Your task to perform on an android device: Open settings on Google Maps Image 0: 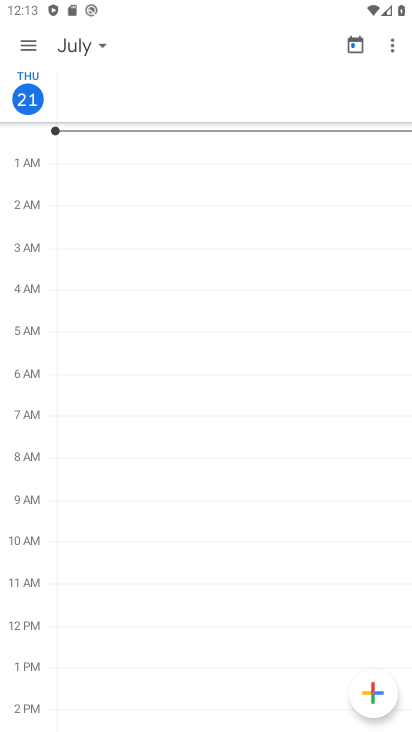
Step 0: press home button
Your task to perform on an android device: Open settings on Google Maps Image 1: 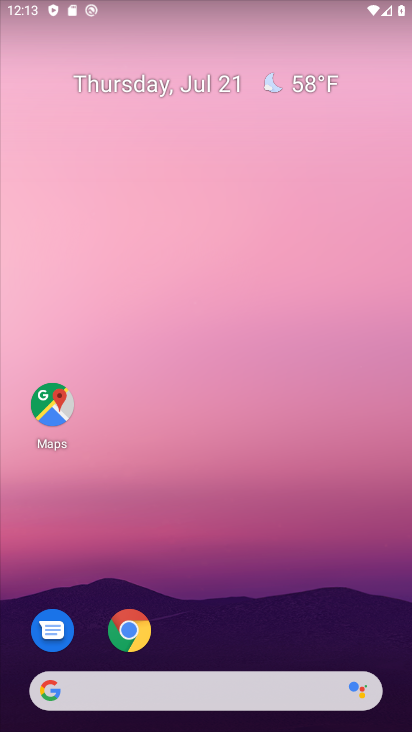
Step 1: drag from (183, 691) to (10, 97)
Your task to perform on an android device: Open settings on Google Maps Image 2: 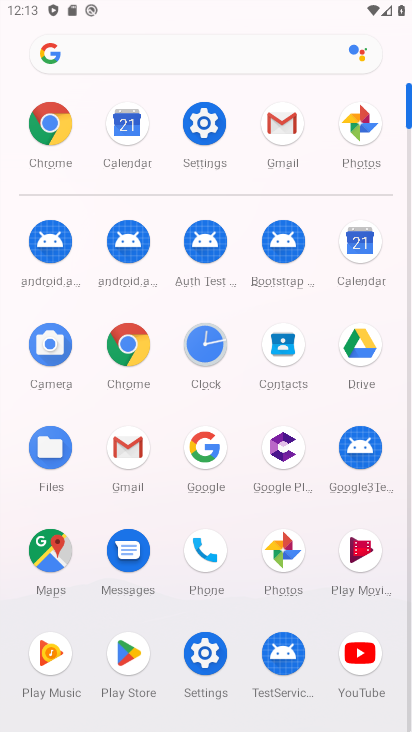
Step 2: click (46, 553)
Your task to perform on an android device: Open settings on Google Maps Image 3: 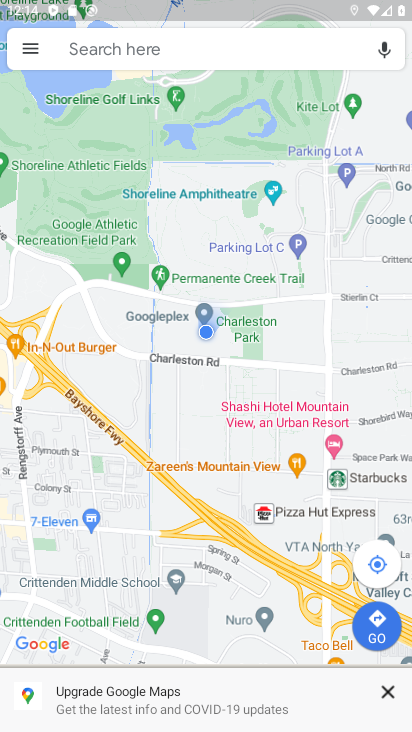
Step 3: click (26, 48)
Your task to perform on an android device: Open settings on Google Maps Image 4: 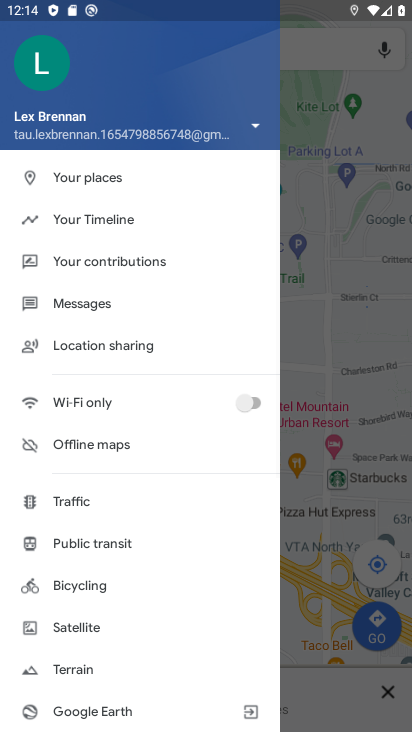
Step 4: drag from (105, 673) to (74, 371)
Your task to perform on an android device: Open settings on Google Maps Image 5: 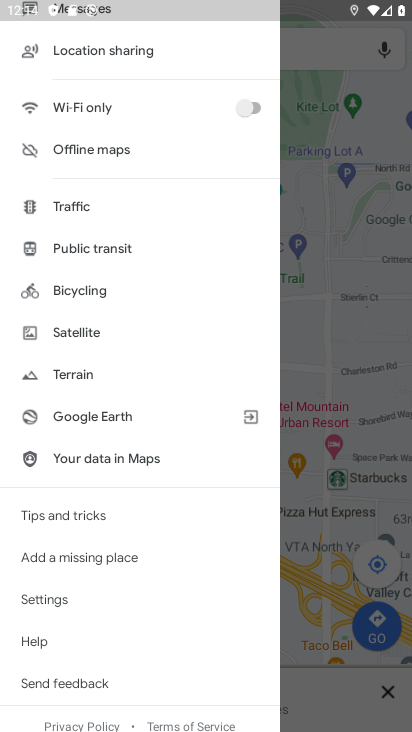
Step 5: click (67, 602)
Your task to perform on an android device: Open settings on Google Maps Image 6: 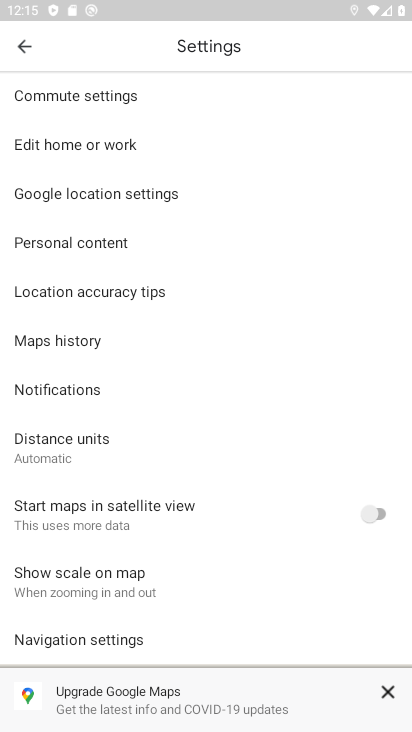
Step 6: task complete